Your task to perform on an android device: What is the recent news? Image 0: 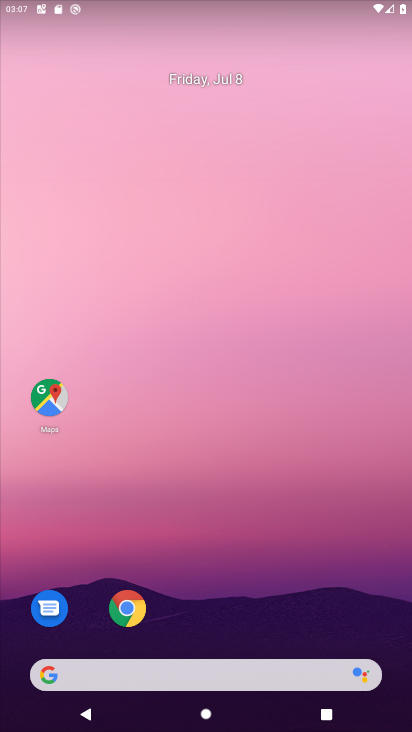
Step 0: drag from (249, 653) to (233, 286)
Your task to perform on an android device: What is the recent news? Image 1: 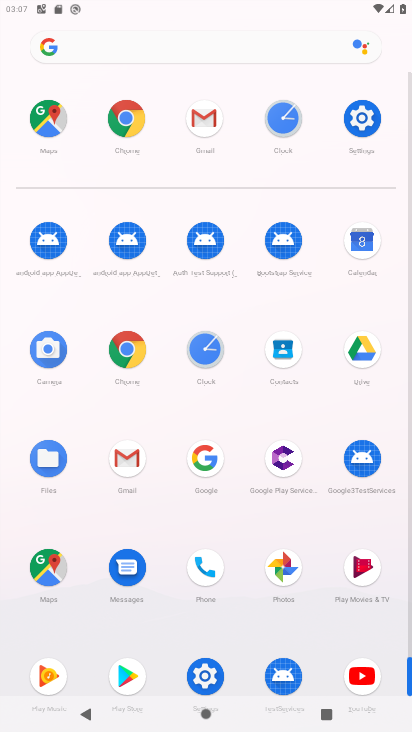
Step 1: click (124, 105)
Your task to perform on an android device: What is the recent news? Image 2: 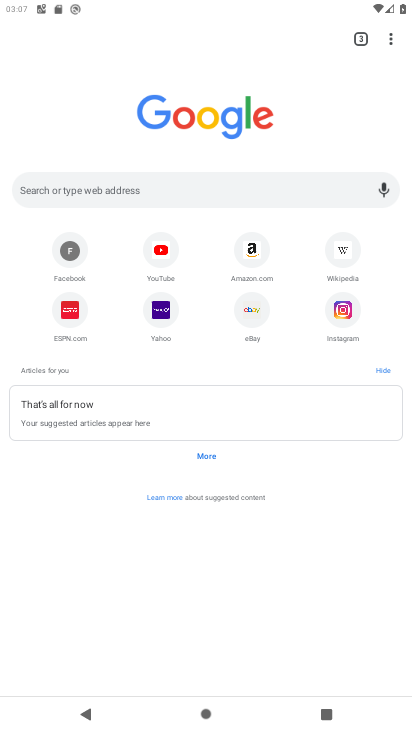
Step 2: click (148, 175)
Your task to perform on an android device: What is the recent news? Image 3: 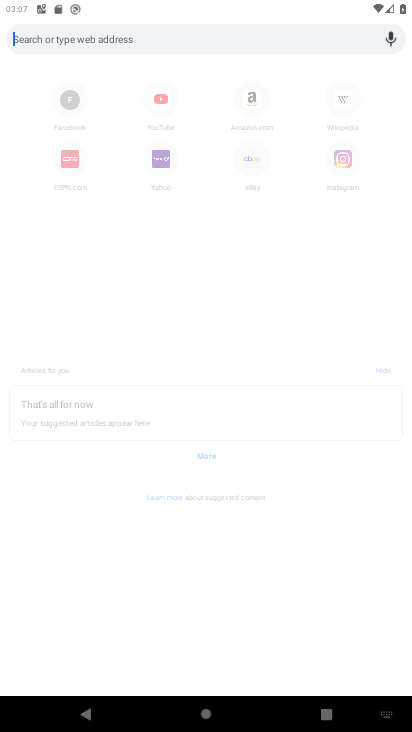
Step 3: click (190, 32)
Your task to perform on an android device: What is the recent news? Image 4: 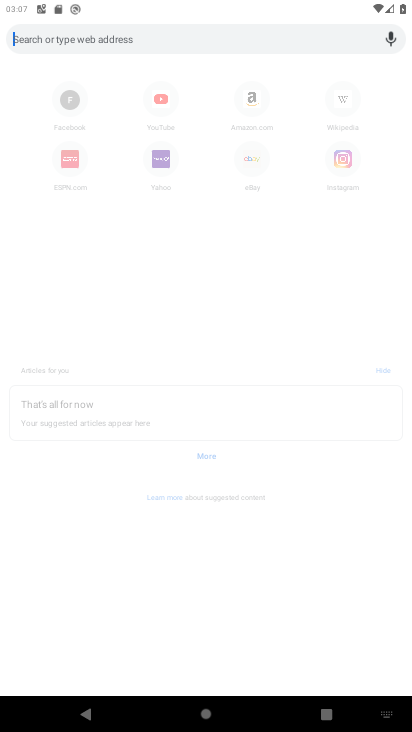
Step 4: type "What is the recent news "
Your task to perform on an android device: What is the recent news? Image 5: 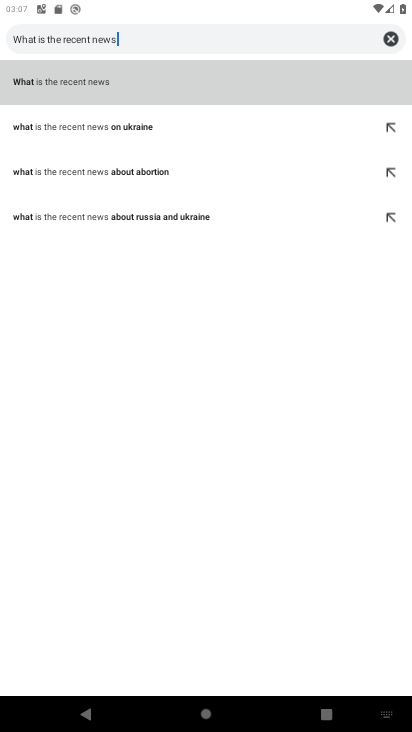
Step 5: click (78, 71)
Your task to perform on an android device: What is the recent news? Image 6: 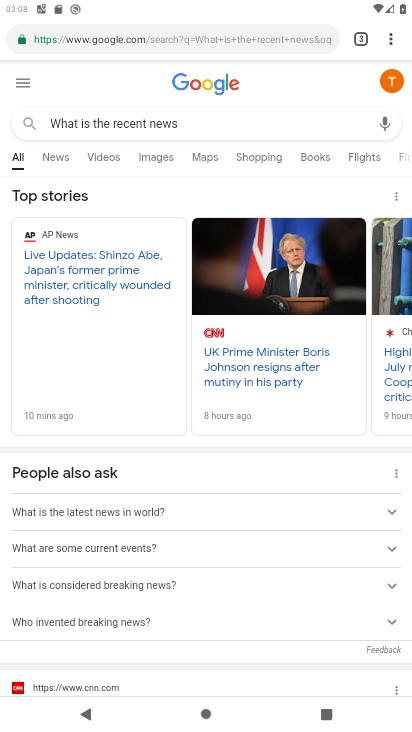
Step 6: task complete